Your task to perform on an android device: Go to wifi settings Image 0: 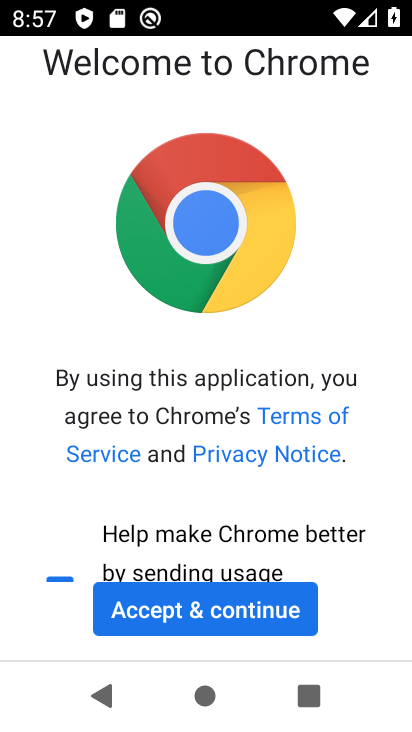
Step 0: press home button
Your task to perform on an android device: Go to wifi settings Image 1: 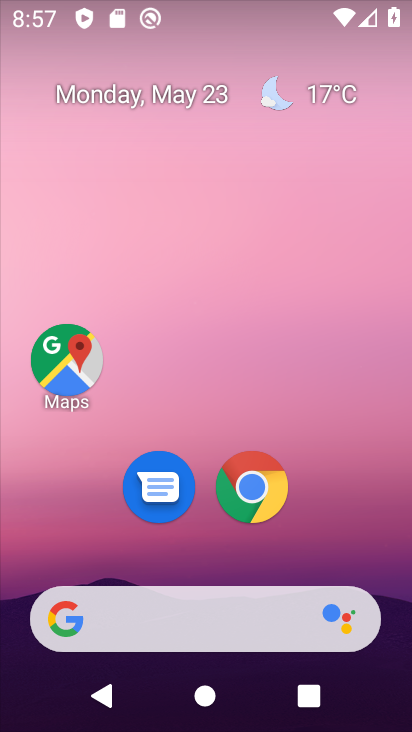
Step 1: drag from (57, 576) to (247, 15)
Your task to perform on an android device: Go to wifi settings Image 2: 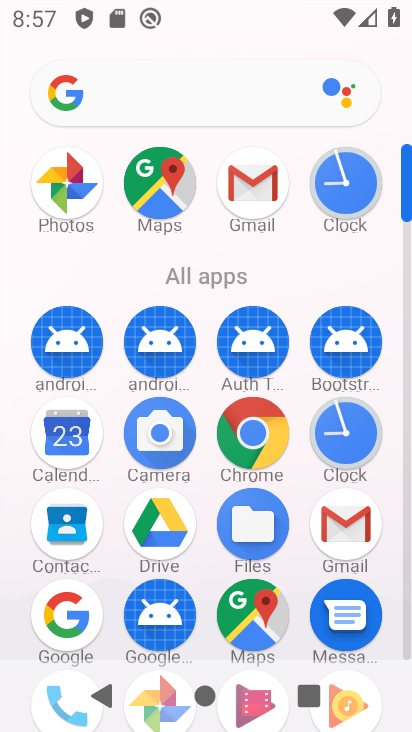
Step 2: drag from (132, 683) to (193, 334)
Your task to perform on an android device: Go to wifi settings Image 3: 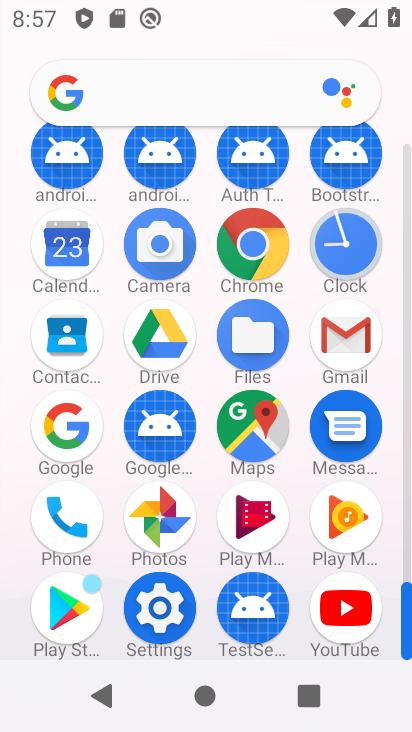
Step 3: click (164, 620)
Your task to perform on an android device: Go to wifi settings Image 4: 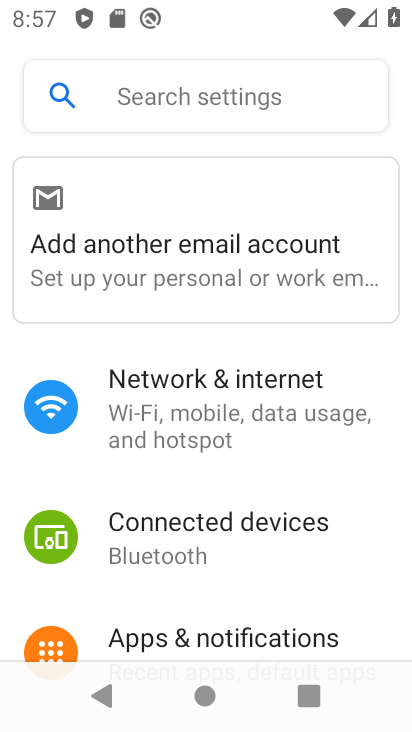
Step 4: click (190, 388)
Your task to perform on an android device: Go to wifi settings Image 5: 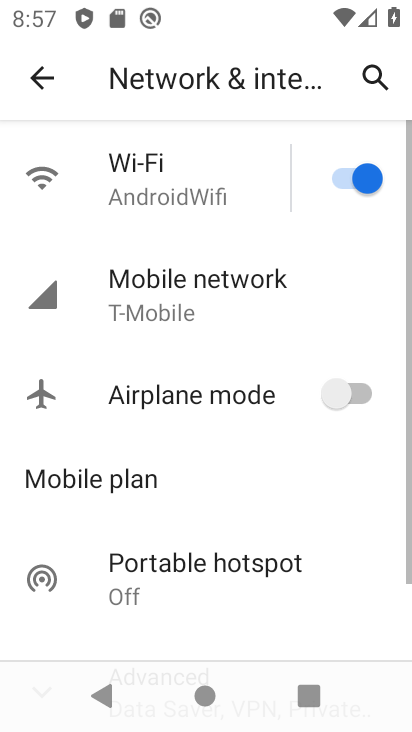
Step 5: click (230, 177)
Your task to perform on an android device: Go to wifi settings Image 6: 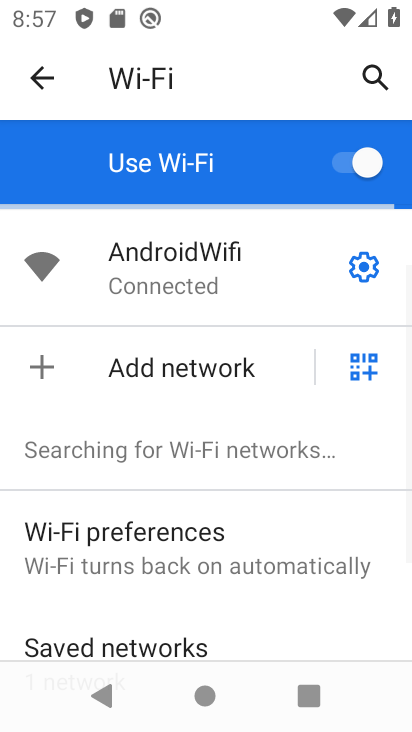
Step 6: task complete